Your task to perform on an android device: check android version Image 0: 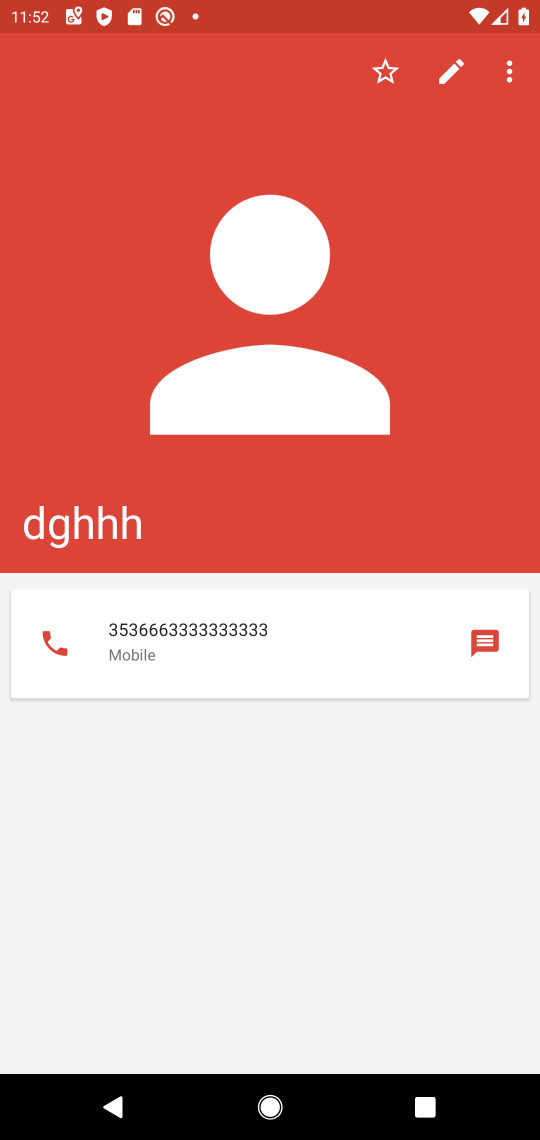
Step 0: press home button
Your task to perform on an android device: check android version Image 1: 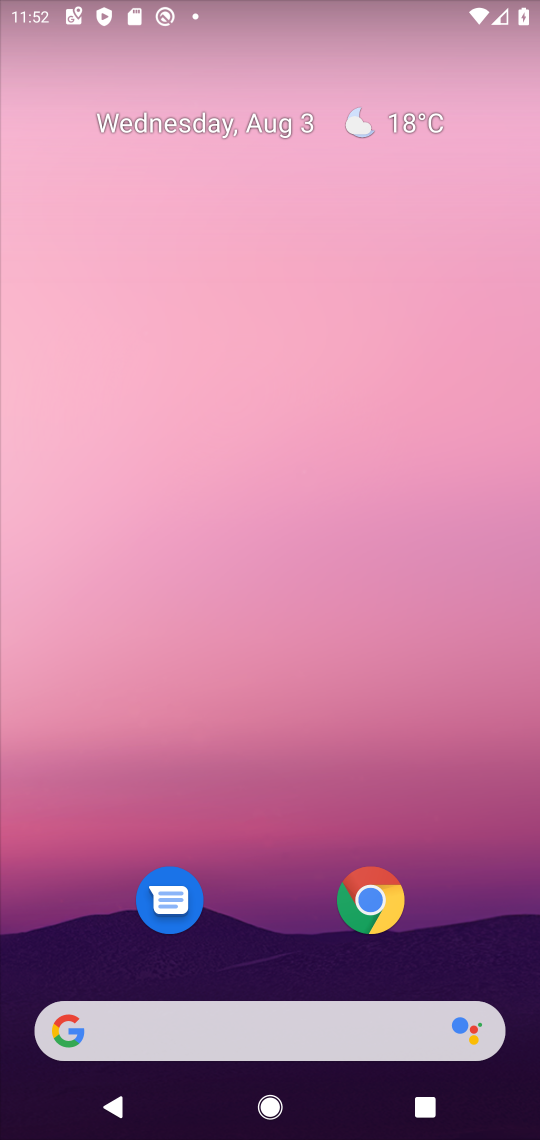
Step 1: drag from (302, 799) to (429, 15)
Your task to perform on an android device: check android version Image 2: 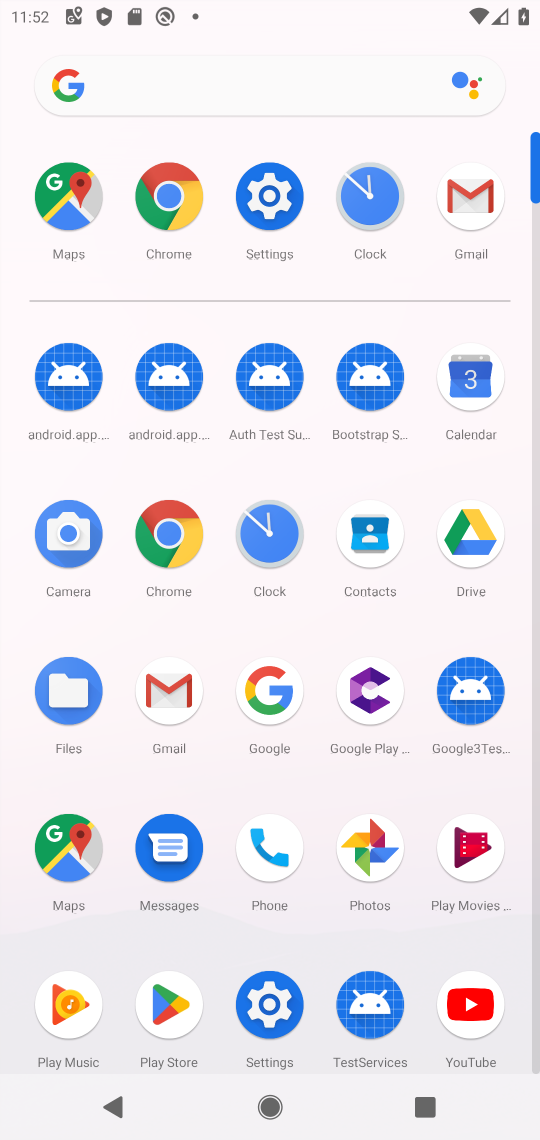
Step 2: click (265, 188)
Your task to perform on an android device: check android version Image 3: 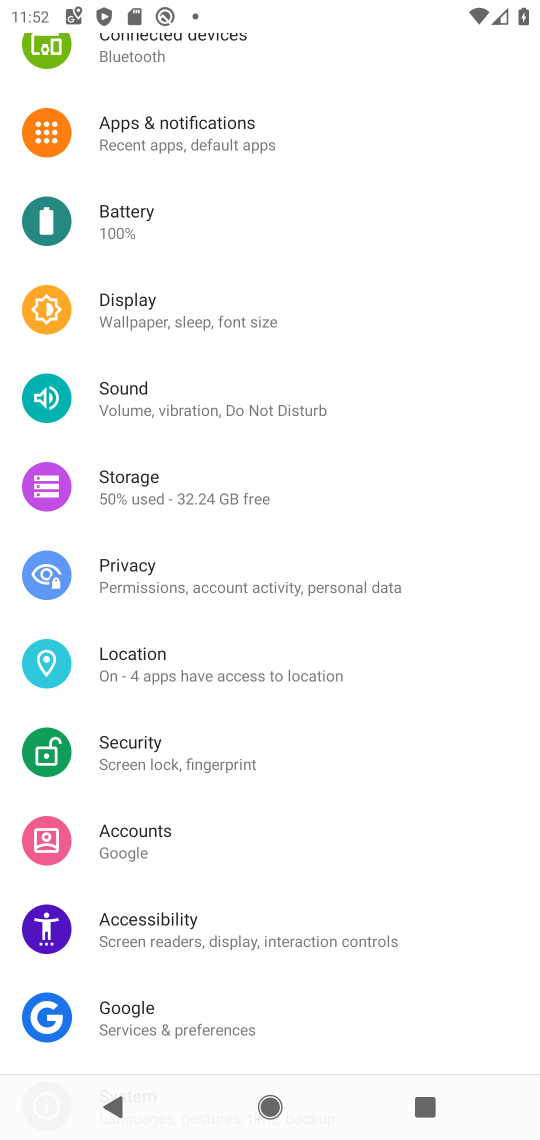
Step 3: task complete